Your task to perform on an android device: Turn on the flashlight Image 0: 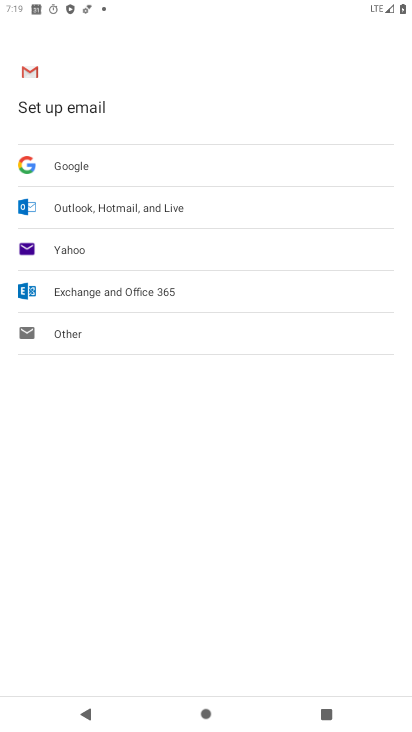
Step 0: press home button
Your task to perform on an android device: Turn on the flashlight Image 1: 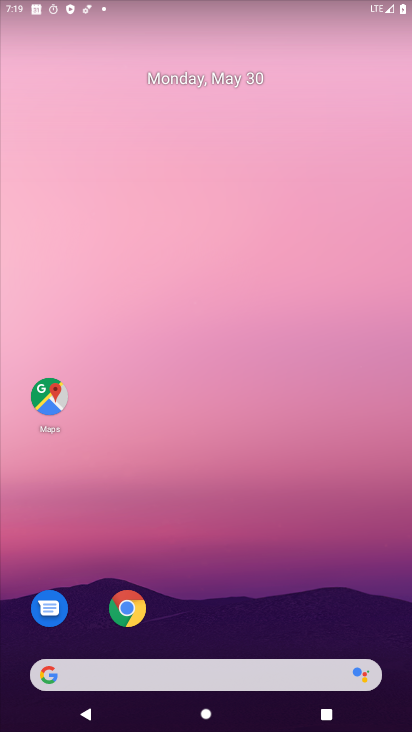
Step 1: drag from (185, 599) to (401, 176)
Your task to perform on an android device: Turn on the flashlight Image 2: 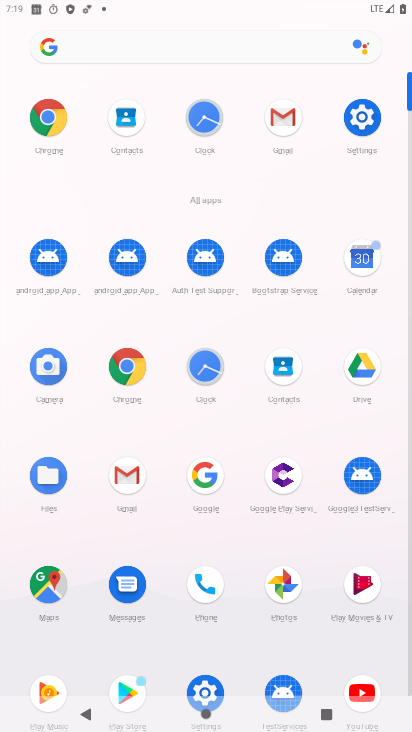
Step 2: click (369, 120)
Your task to perform on an android device: Turn on the flashlight Image 3: 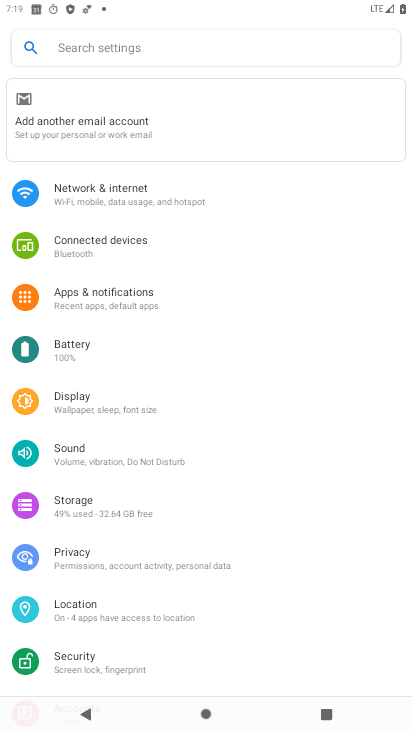
Step 3: click (97, 411)
Your task to perform on an android device: Turn on the flashlight Image 4: 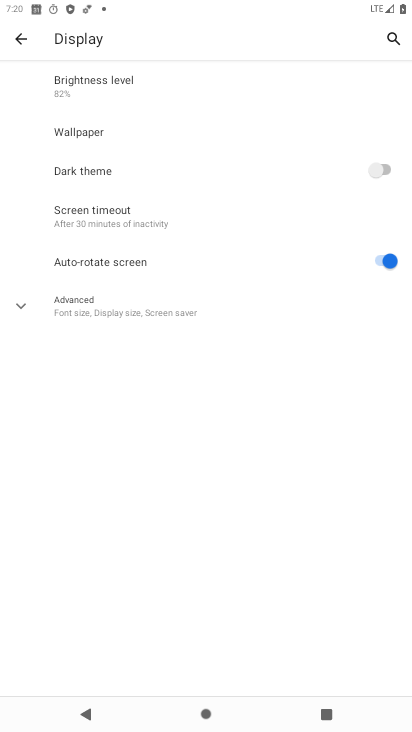
Step 4: task complete